Your task to perform on an android device: change the clock display to analog Image 0: 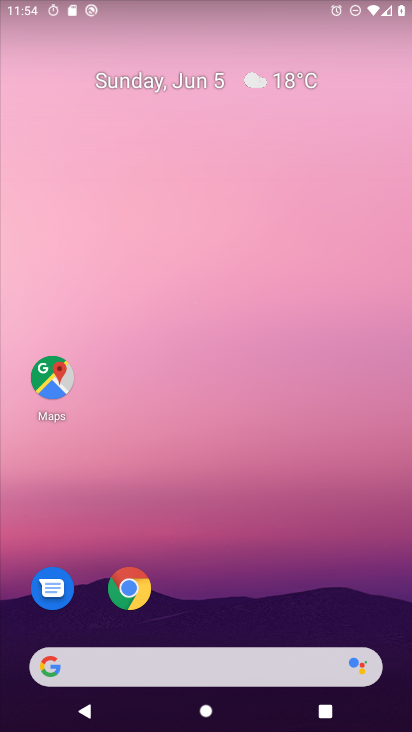
Step 0: drag from (377, 604) to (351, 186)
Your task to perform on an android device: change the clock display to analog Image 1: 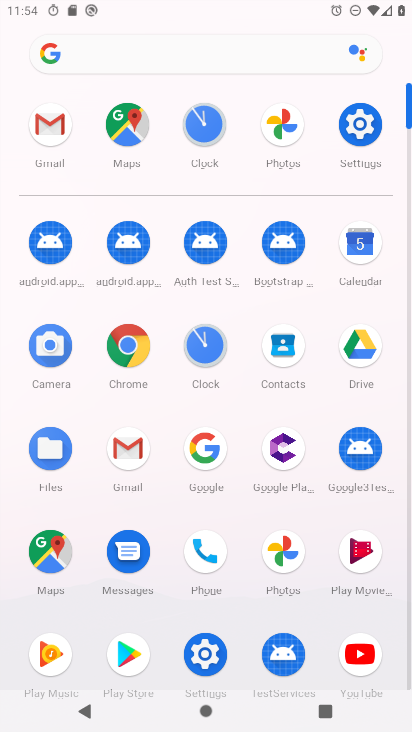
Step 1: click (209, 348)
Your task to perform on an android device: change the clock display to analog Image 2: 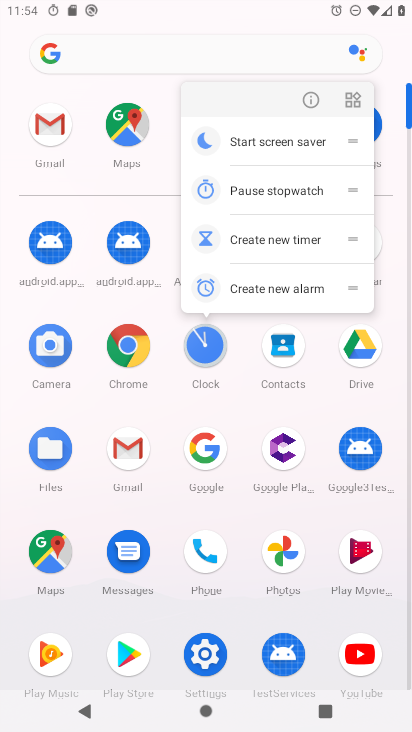
Step 2: click (209, 348)
Your task to perform on an android device: change the clock display to analog Image 3: 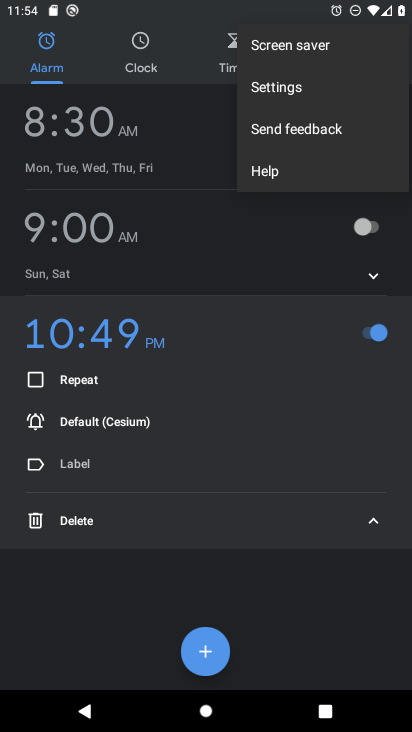
Step 3: click (296, 94)
Your task to perform on an android device: change the clock display to analog Image 4: 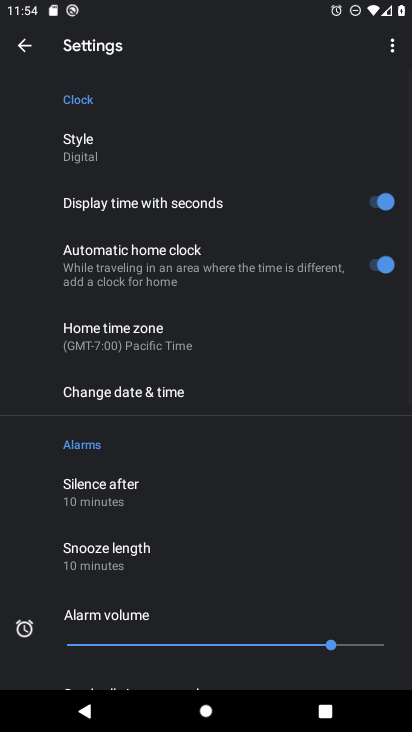
Step 4: drag from (278, 414) to (295, 342)
Your task to perform on an android device: change the clock display to analog Image 5: 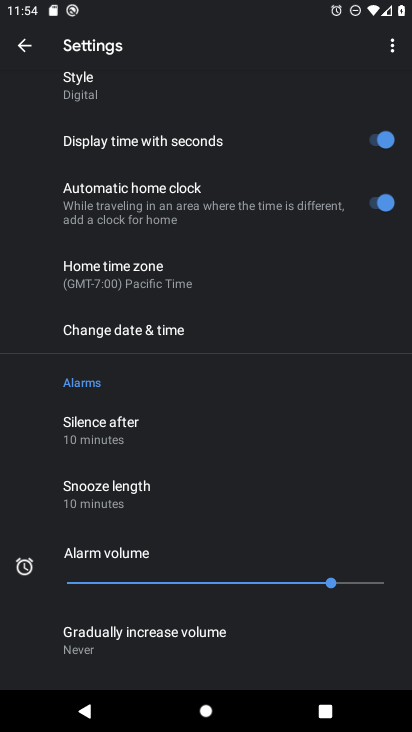
Step 5: drag from (305, 479) to (308, 392)
Your task to perform on an android device: change the clock display to analog Image 6: 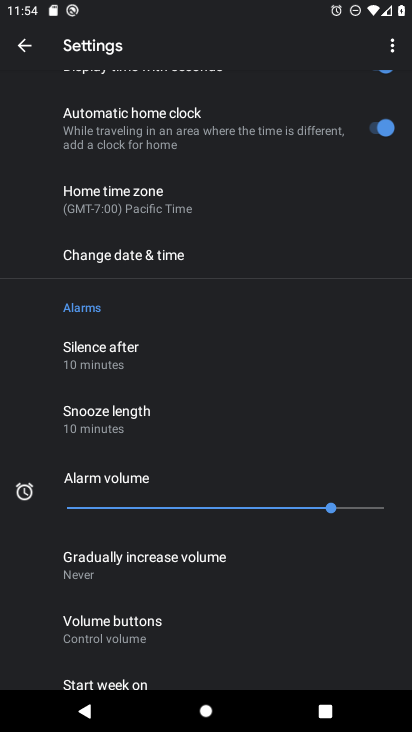
Step 6: drag from (320, 533) to (323, 453)
Your task to perform on an android device: change the clock display to analog Image 7: 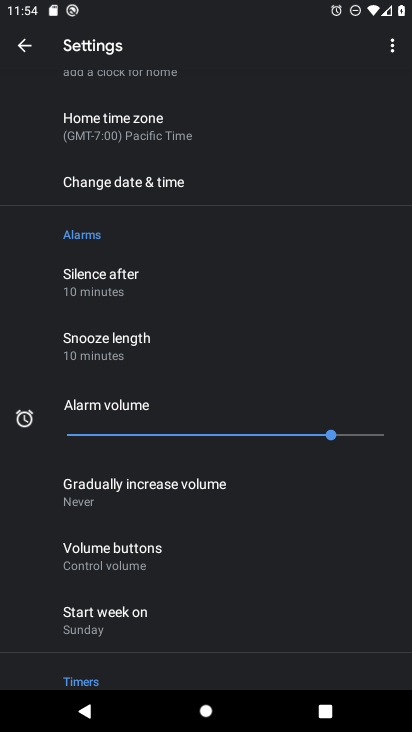
Step 7: drag from (323, 521) to (328, 449)
Your task to perform on an android device: change the clock display to analog Image 8: 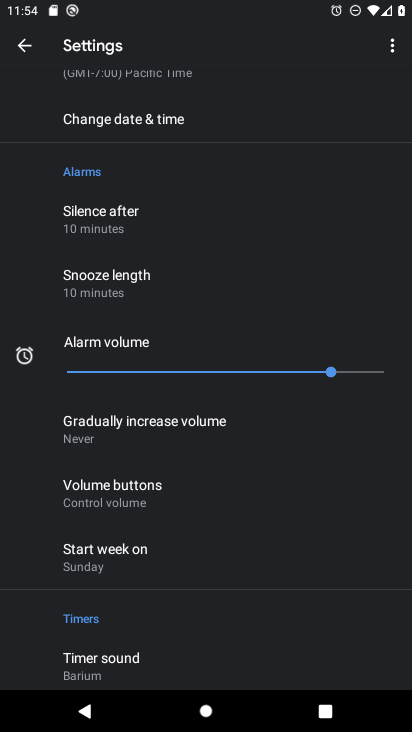
Step 8: drag from (327, 530) to (329, 454)
Your task to perform on an android device: change the clock display to analog Image 9: 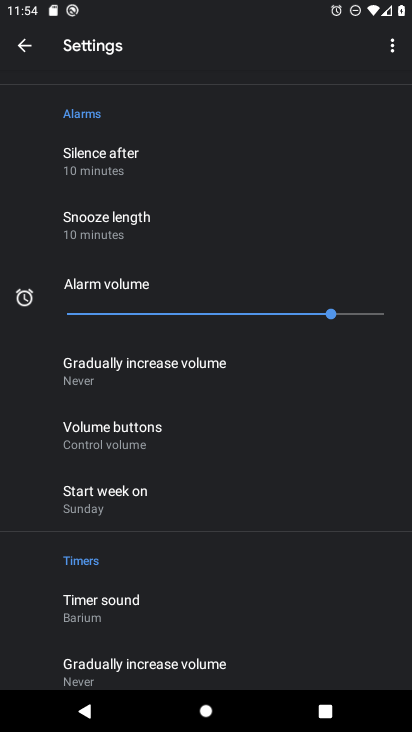
Step 9: drag from (329, 519) to (329, 458)
Your task to perform on an android device: change the clock display to analog Image 10: 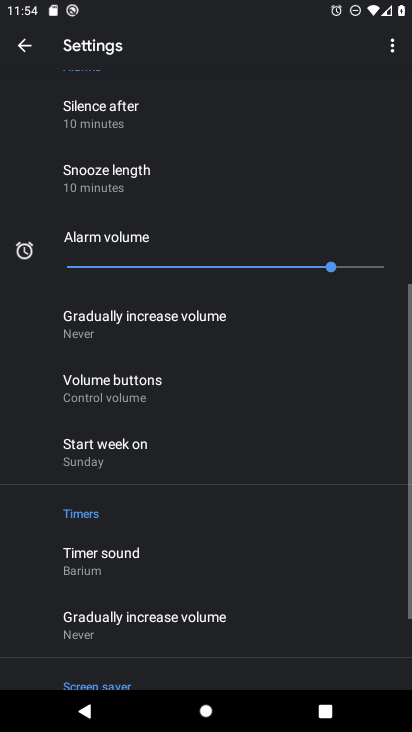
Step 10: drag from (336, 545) to (340, 480)
Your task to perform on an android device: change the clock display to analog Image 11: 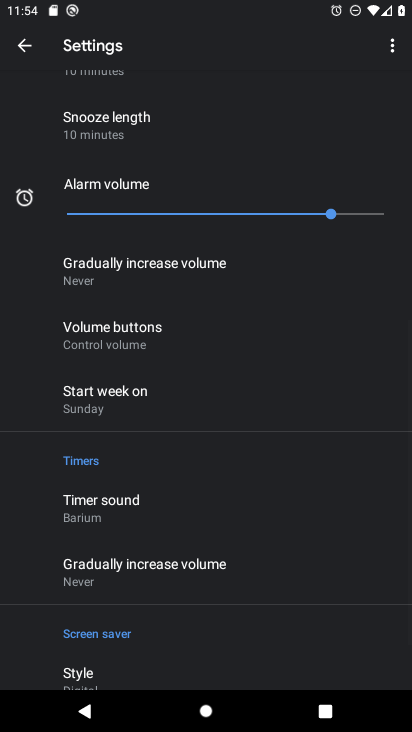
Step 11: drag from (337, 531) to (334, 449)
Your task to perform on an android device: change the clock display to analog Image 12: 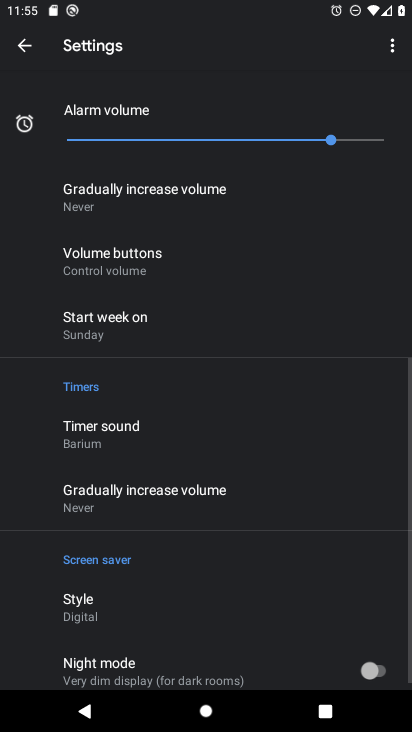
Step 12: drag from (329, 340) to (328, 422)
Your task to perform on an android device: change the clock display to analog Image 13: 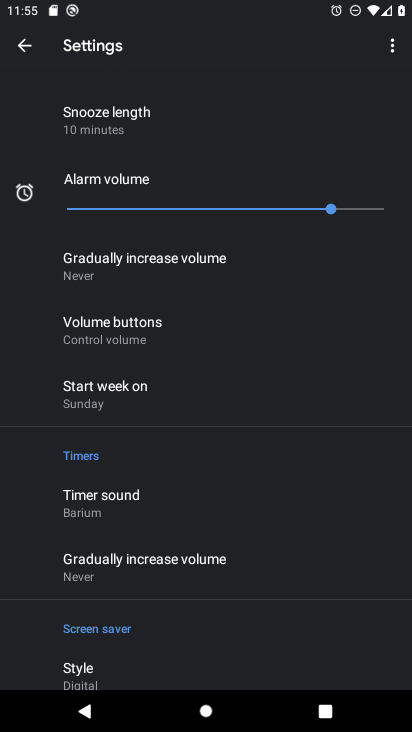
Step 13: drag from (322, 281) to (326, 347)
Your task to perform on an android device: change the clock display to analog Image 14: 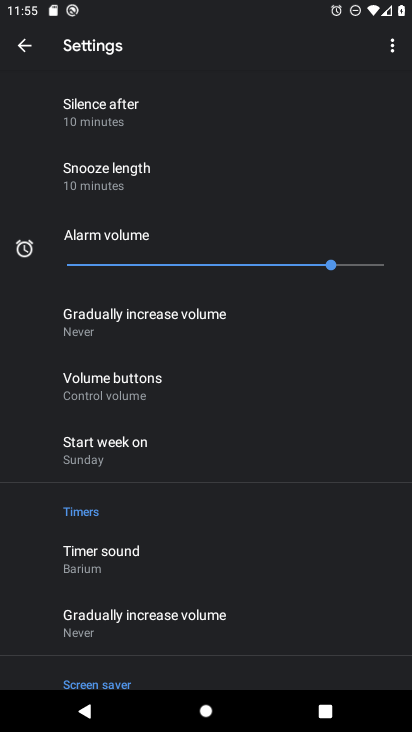
Step 14: drag from (322, 213) to (324, 303)
Your task to perform on an android device: change the clock display to analog Image 15: 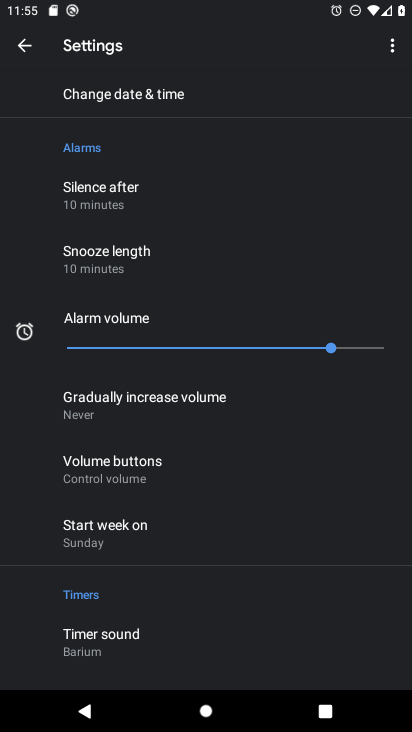
Step 15: drag from (313, 226) to (313, 309)
Your task to perform on an android device: change the clock display to analog Image 16: 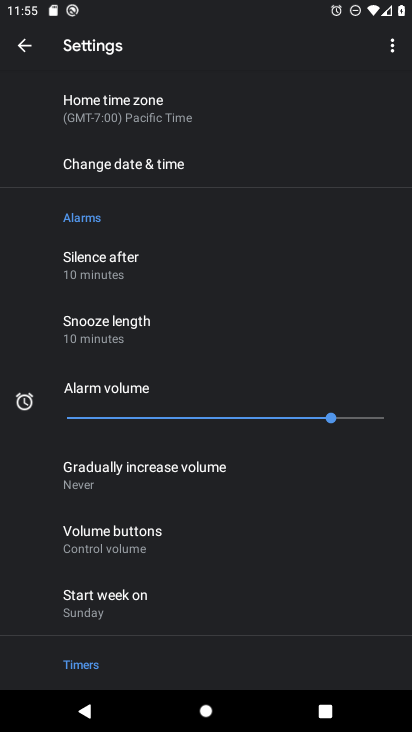
Step 16: drag from (316, 222) to (317, 289)
Your task to perform on an android device: change the clock display to analog Image 17: 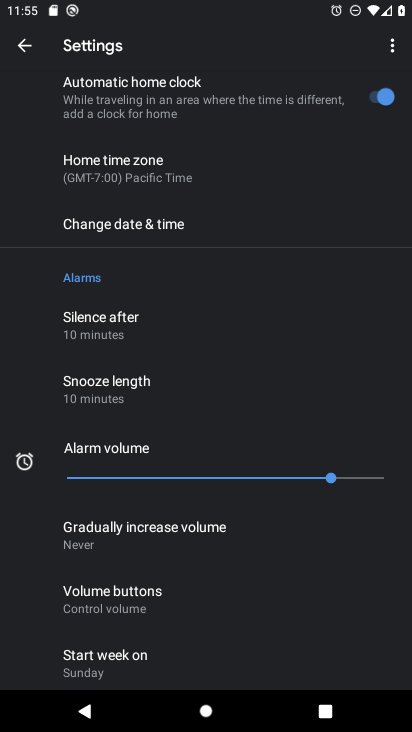
Step 17: drag from (338, 177) to (338, 243)
Your task to perform on an android device: change the clock display to analog Image 18: 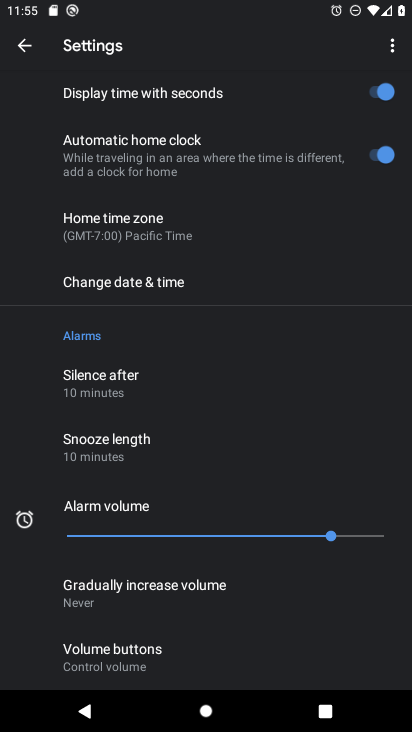
Step 18: drag from (328, 160) to (325, 226)
Your task to perform on an android device: change the clock display to analog Image 19: 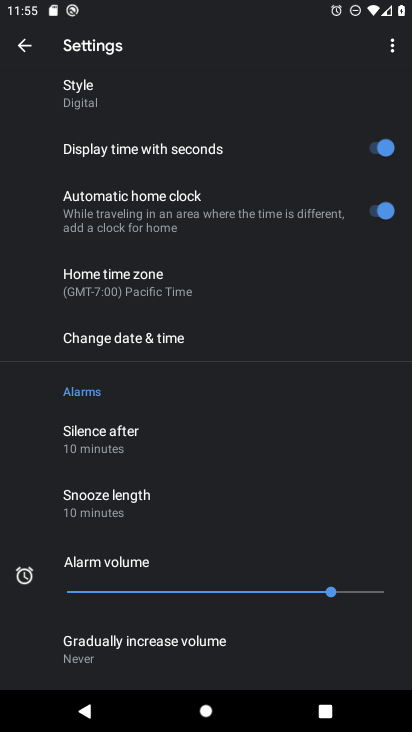
Step 19: drag from (322, 154) to (322, 250)
Your task to perform on an android device: change the clock display to analog Image 20: 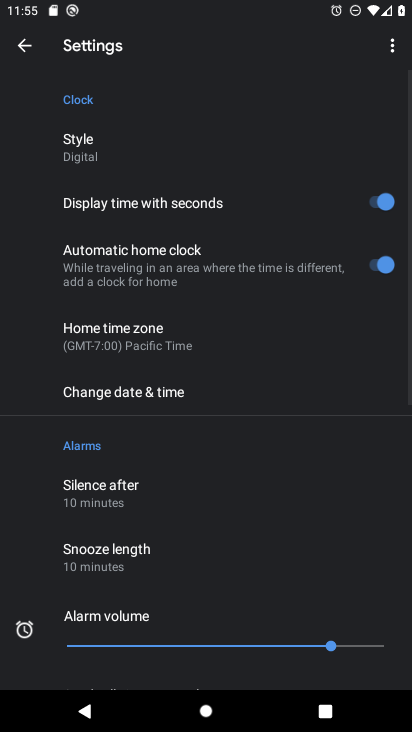
Step 20: drag from (314, 171) to (306, 267)
Your task to perform on an android device: change the clock display to analog Image 21: 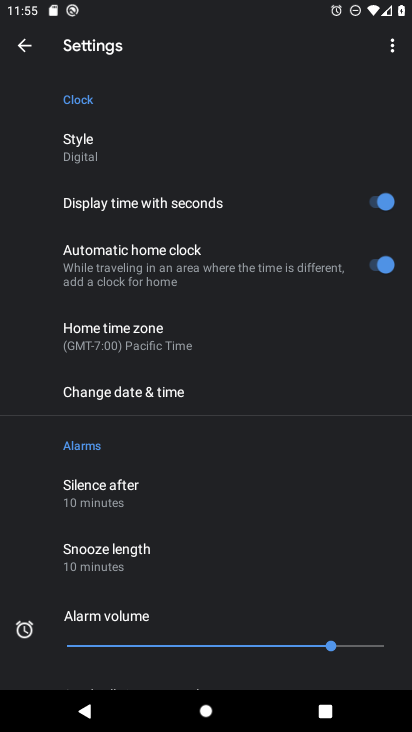
Step 21: click (105, 162)
Your task to perform on an android device: change the clock display to analog Image 22: 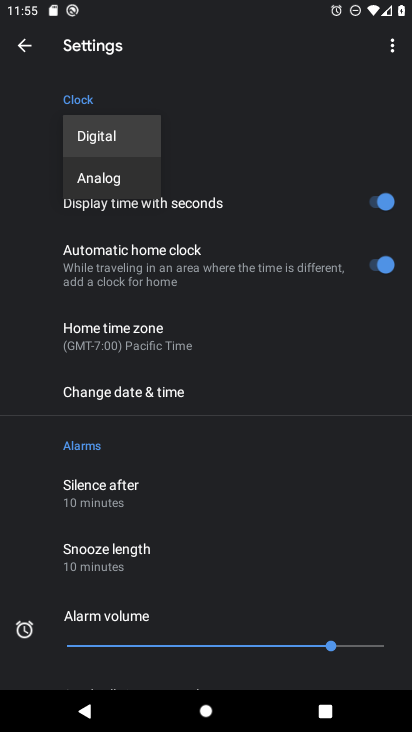
Step 22: click (123, 189)
Your task to perform on an android device: change the clock display to analog Image 23: 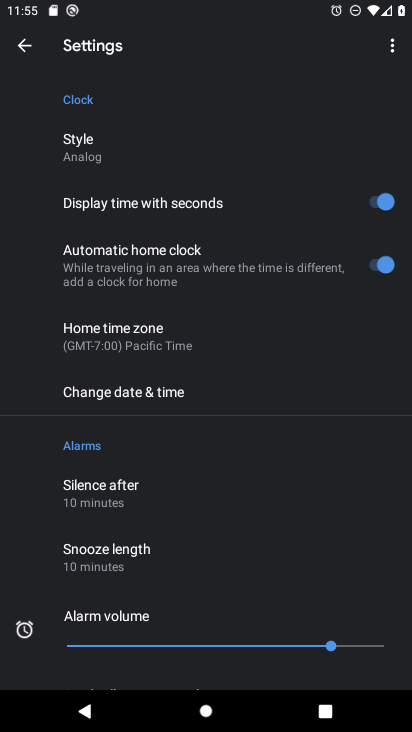
Step 23: task complete